Your task to perform on an android device: toggle data saver in the chrome app Image 0: 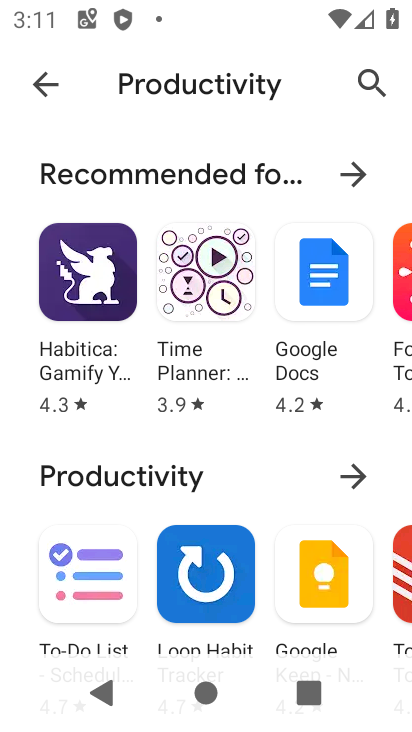
Step 0: press home button
Your task to perform on an android device: toggle data saver in the chrome app Image 1: 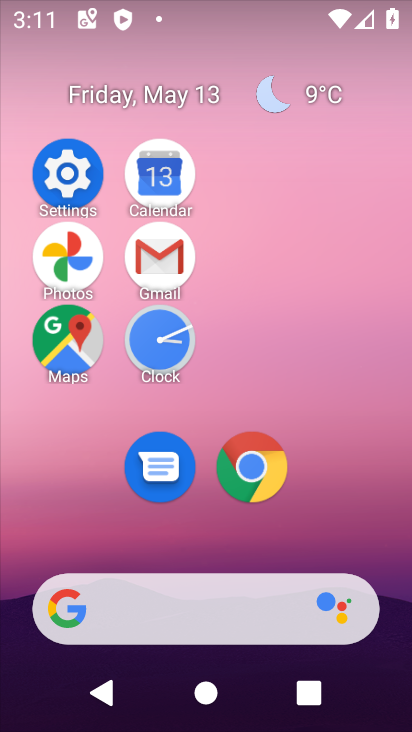
Step 1: click (249, 490)
Your task to perform on an android device: toggle data saver in the chrome app Image 2: 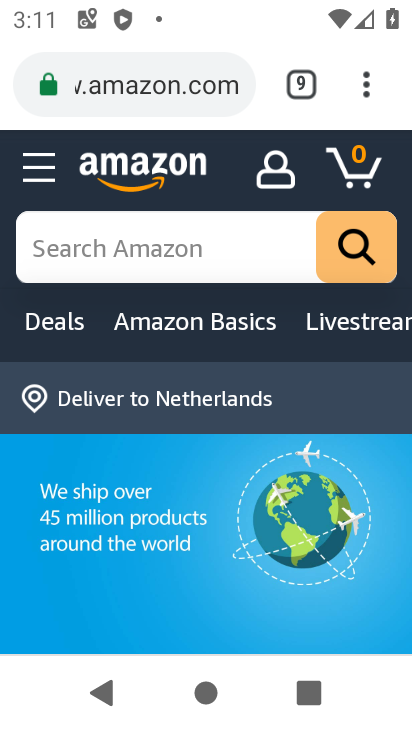
Step 2: click (371, 91)
Your task to perform on an android device: toggle data saver in the chrome app Image 3: 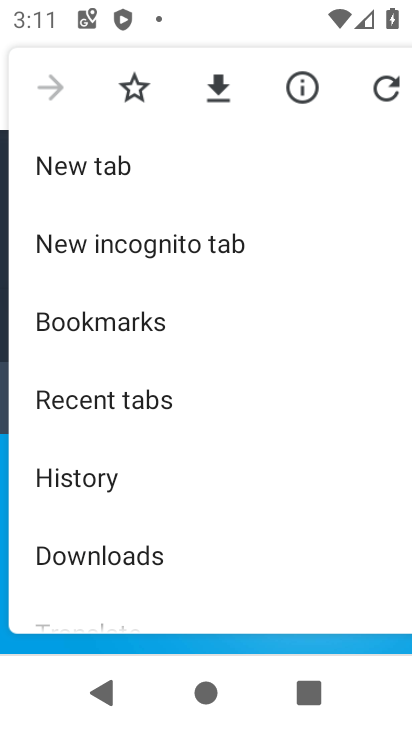
Step 3: drag from (210, 490) to (231, 175)
Your task to perform on an android device: toggle data saver in the chrome app Image 4: 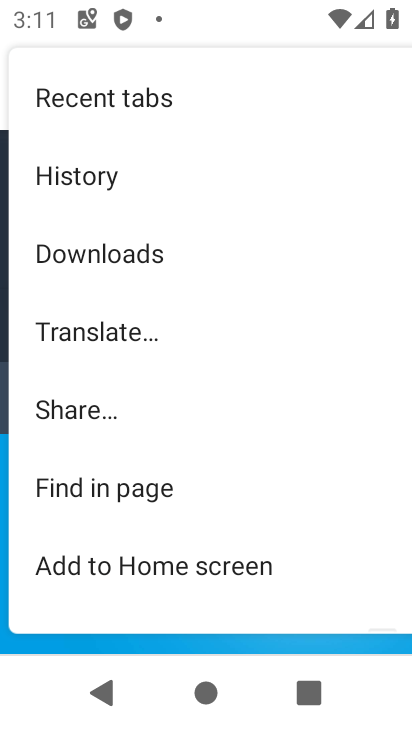
Step 4: drag from (199, 483) to (226, 155)
Your task to perform on an android device: toggle data saver in the chrome app Image 5: 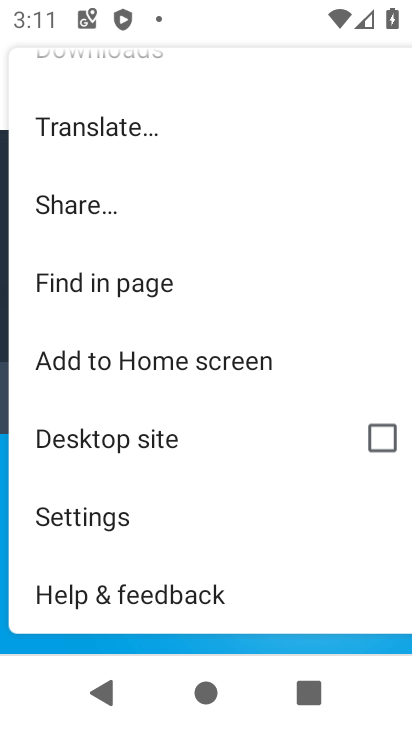
Step 5: click (134, 507)
Your task to perform on an android device: toggle data saver in the chrome app Image 6: 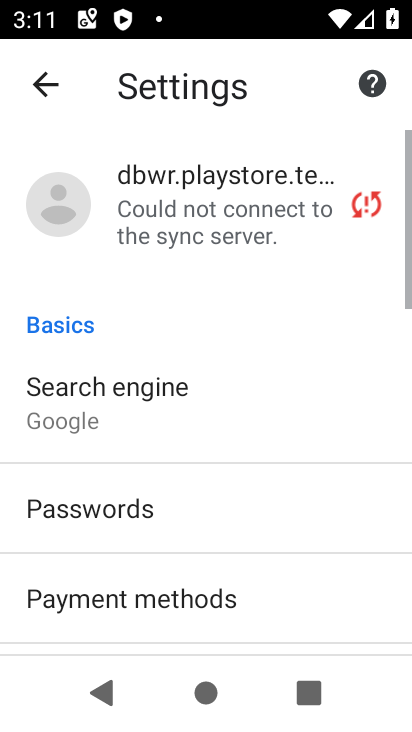
Step 6: drag from (130, 476) to (150, 112)
Your task to perform on an android device: toggle data saver in the chrome app Image 7: 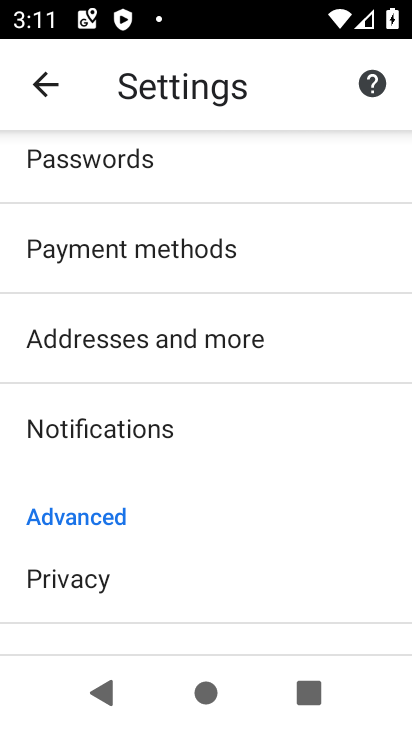
Step 7: drag from (172, 505) to (165, 138)
Your task to perform on an android device: toggle data saver in the chrome app Image 8: 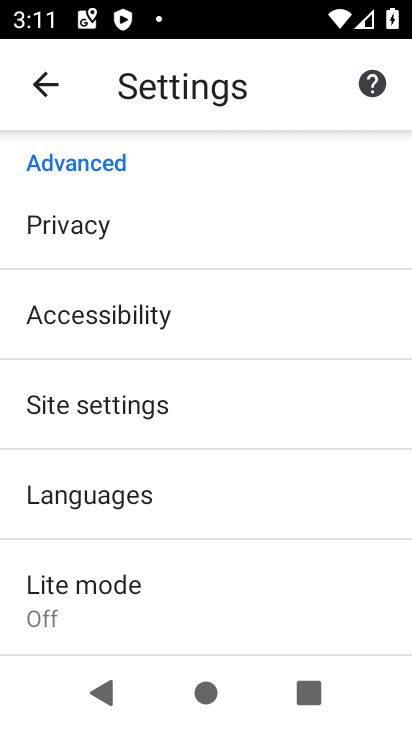
Step 8: click (140, 563)
Your task to perform on an android device: toggle data saver in the chrome app Image 9: 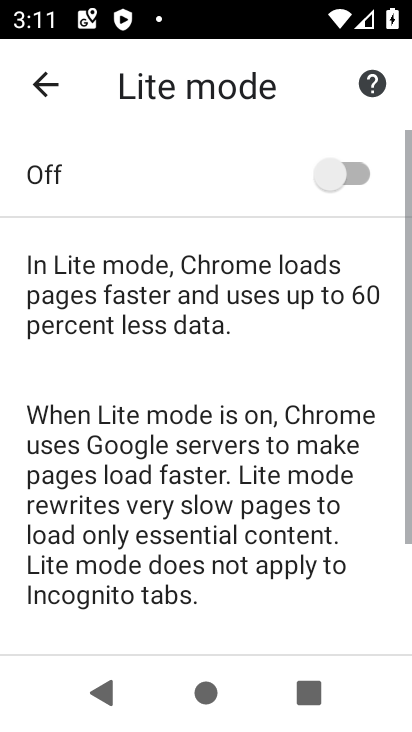
Step 9: click (352, 172)
Your task to perform on an android device: toggle data saver in the chrome app Image 10: 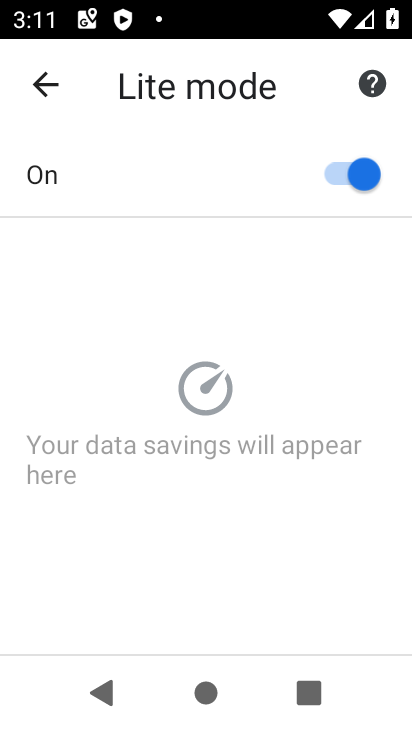
Step 10: task complete